Your task to perform on an android device: check battery use Image 0: 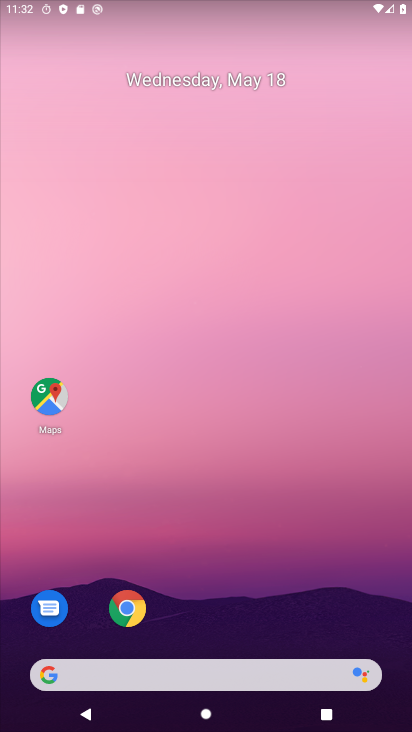
Step 0: drag from (241, 626) to (270, 56)
Your task to perform on an android device: check battery use Image 1: 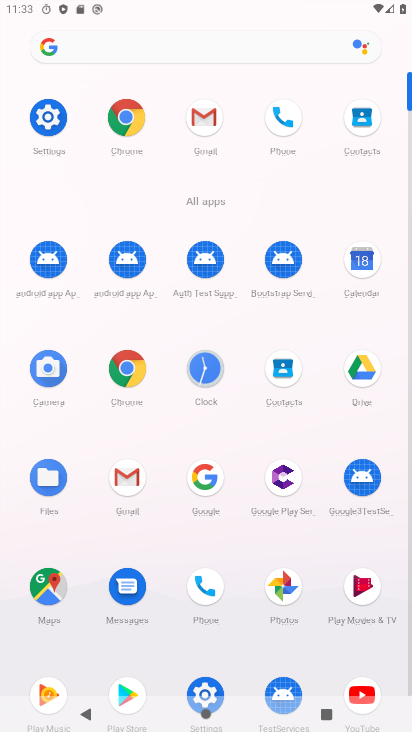
Step 1: click (52, 111)
Your task to perform on an android device: check battery use Image 2: 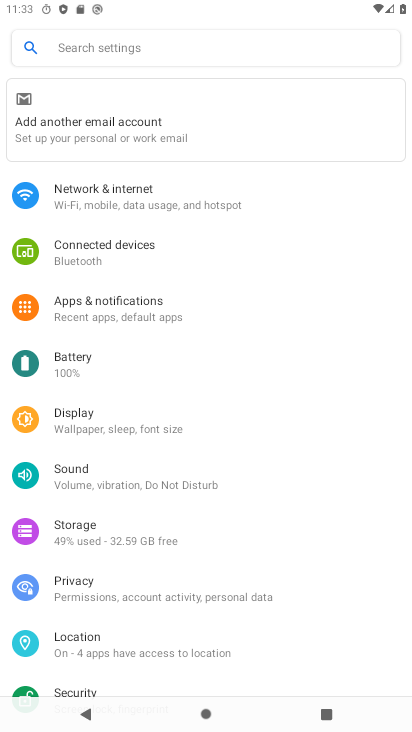
Step 2: click (122, 369)
Your task to perform on an android device: check battery use Image 3: 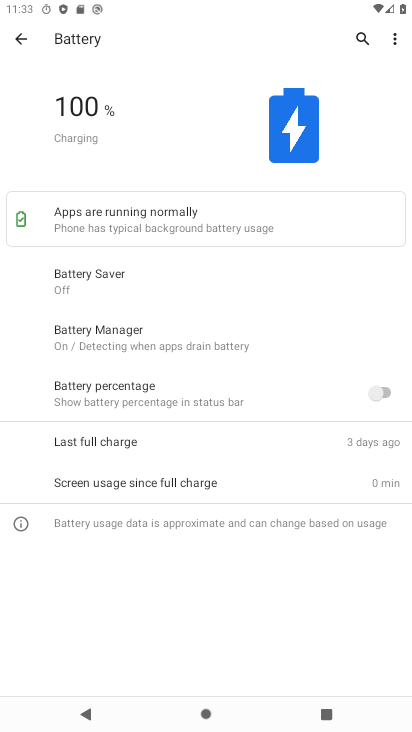
Step 3: task complete